Your task to perform on an android device: turn on translation in the chrome app Image 0: 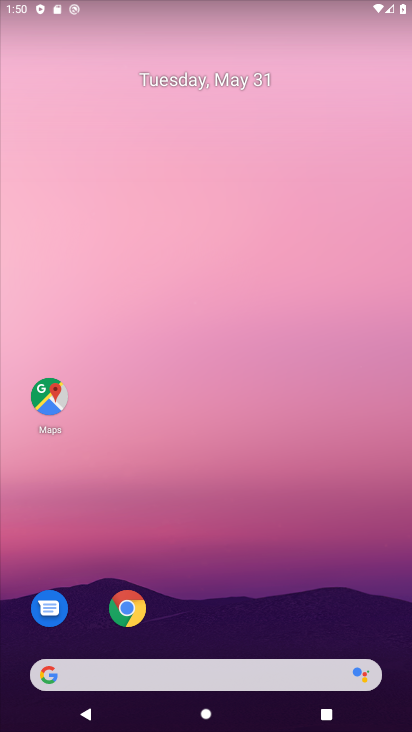
Step 0: click (125, 609)
Your task to perform on an android device: turn on translation in the chrome app Image 1: 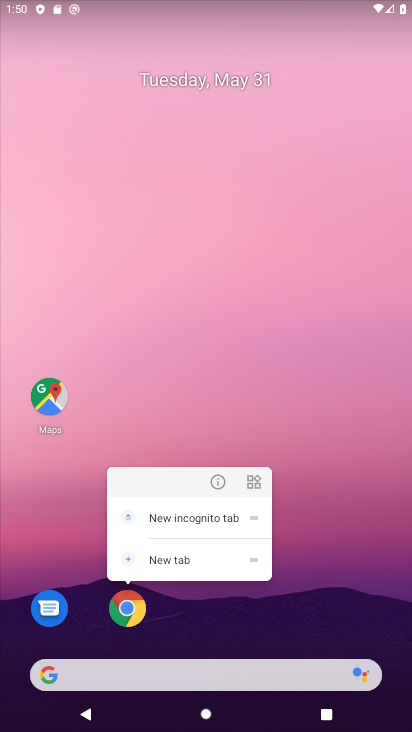
Step 1: click (127, 614)
Your task to perform on an android device: turn on translation in the chrome app Image 2: 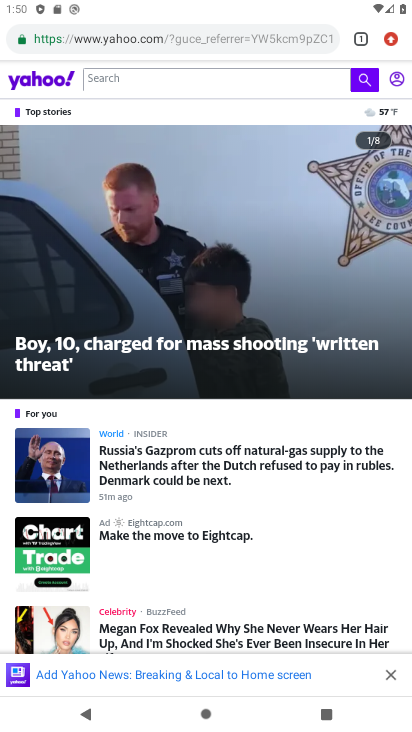
Step 2: click (386, 36)
Your task to perform on an android device: turn on translation in the chrome app Image 3: 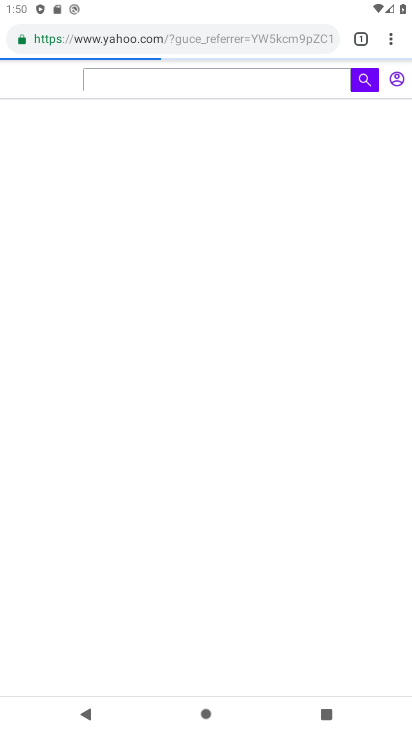
Step 3: click (390, 36)
Your task to perform on an android device: turn on translation in the chrome app Image 4: 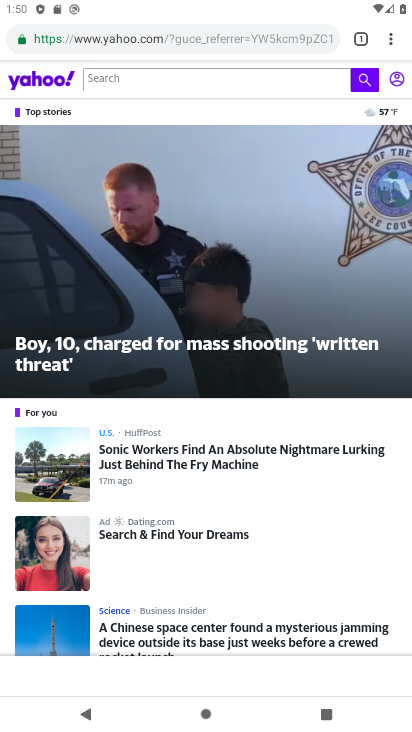
Step 4: drag from (390, 36) to (258, 508)
Your task to perform on an android device: turn on translation in the chrome app Image 5: 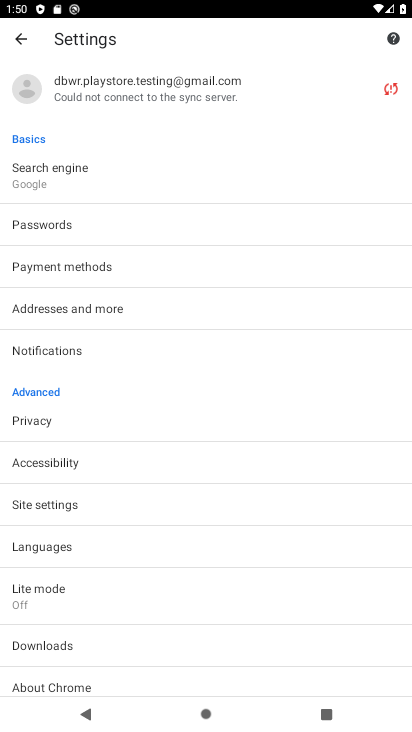
Step 5: click (67, 546)
Your task to perform on an android device: turn on translation in the chrome app Image 6: 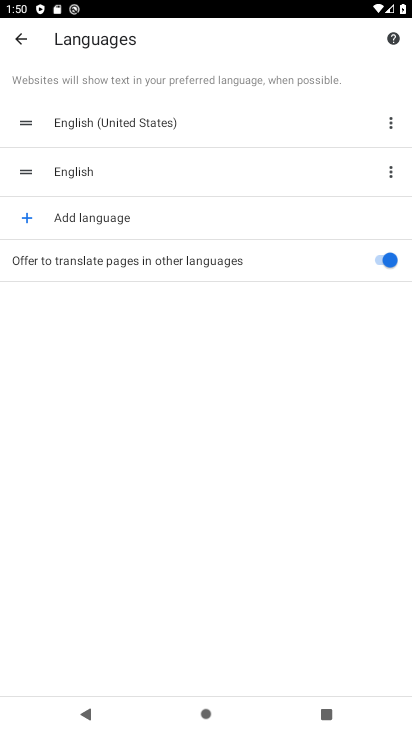
Step 6: task complete